Your task to perform on an android device: Do I have any events tomorrow? Image 0: 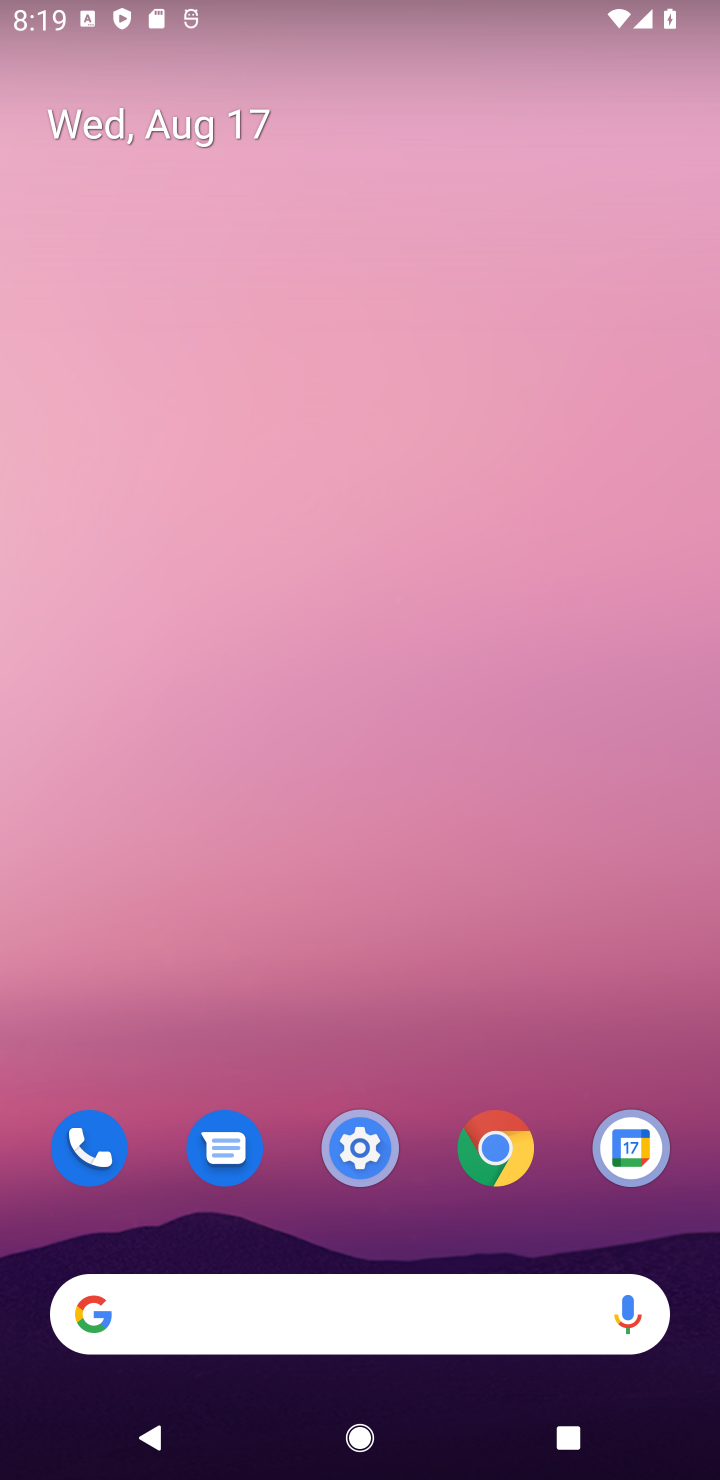
Step 0: click (634, 1148)
Your task to perform on an android device: Do I have any events tomorrow? Image 1: 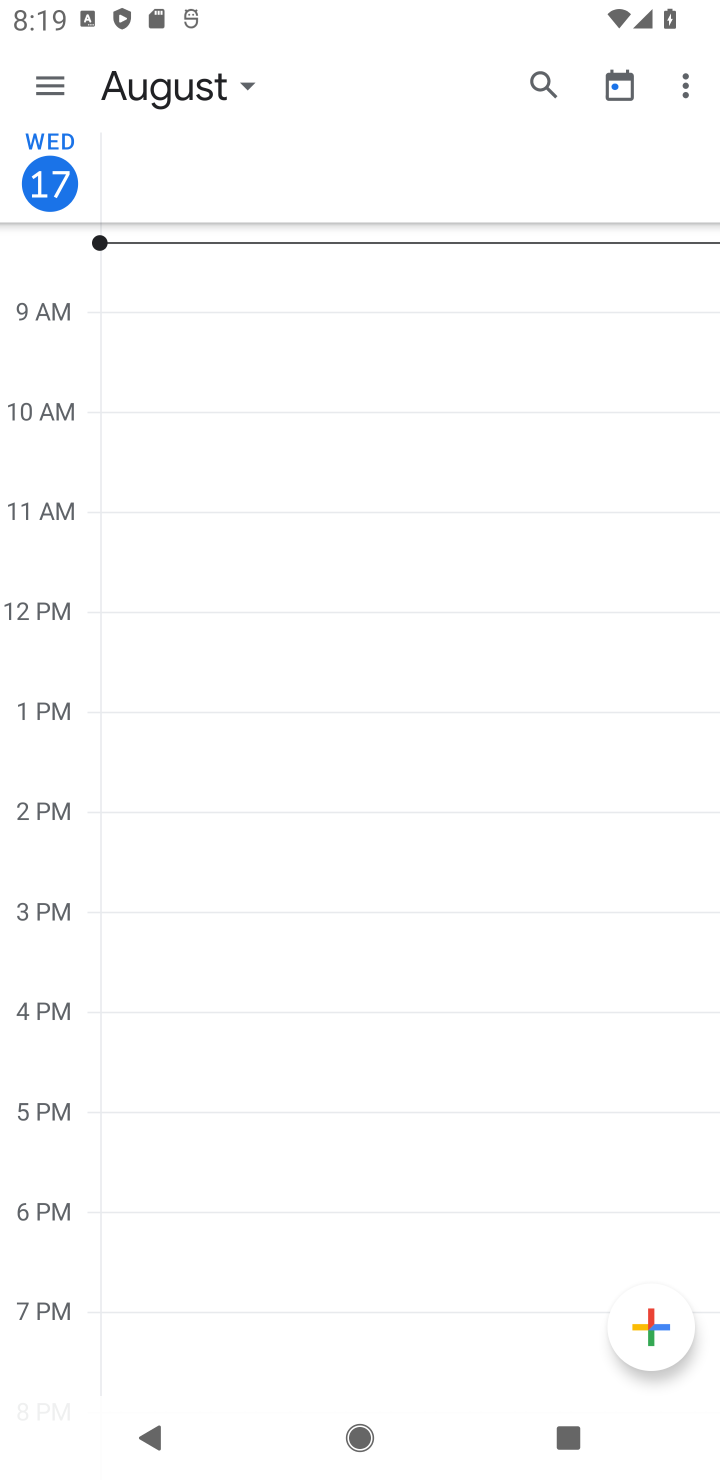
Step 1: click (242, 85)
Your task to perform on an android device: Do I have any events tomorrow? Image 2: 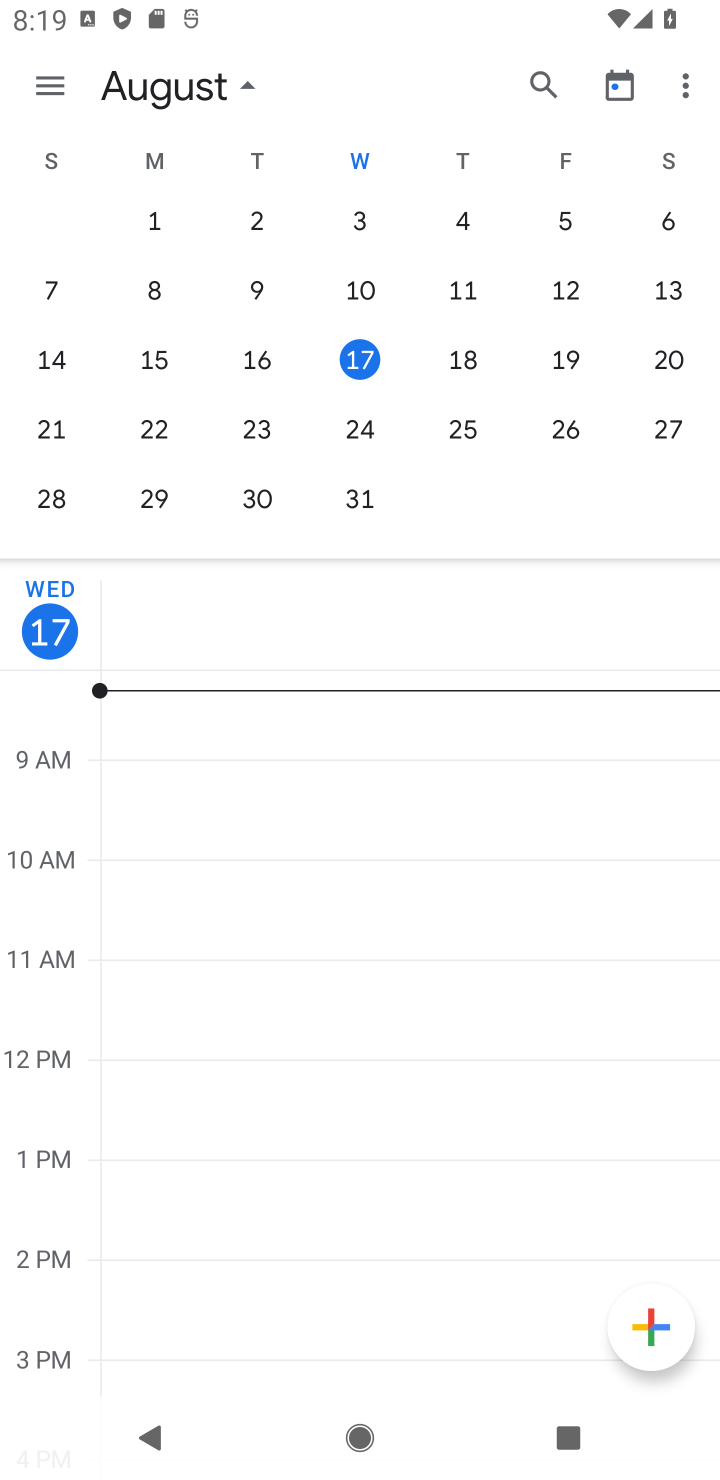
Step 2: click (456, 353)
Your task to perform on an android device: Do I have any events tomorrow? Image 3: 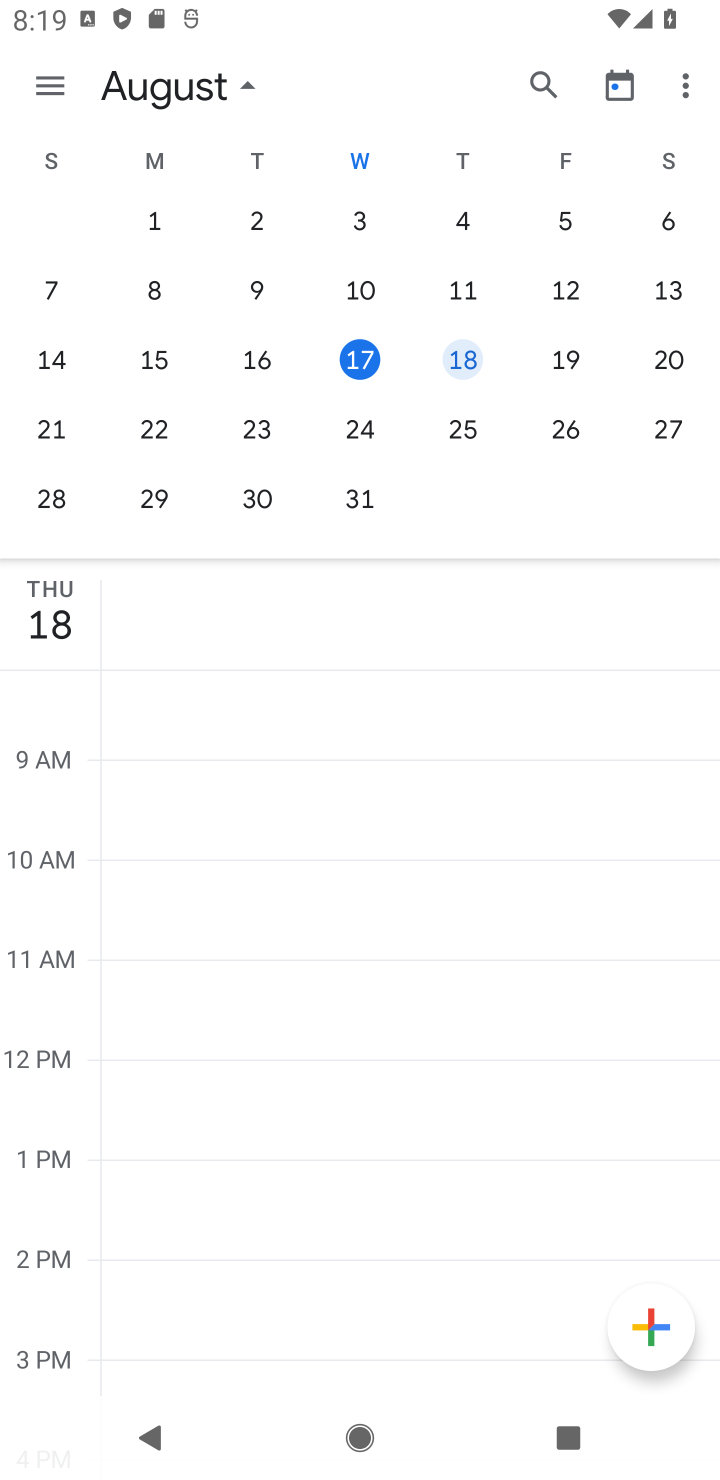
Step 3: task complete